Your task to perform on an android device: all mails in gmail Image 0: 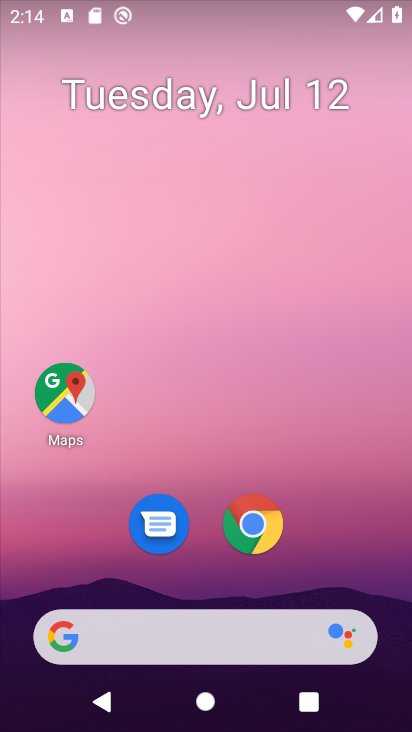
Step 0: drag from (326, 533) to (317, 0)
Your task to perform on an android device: all mails in gmail Image 1: 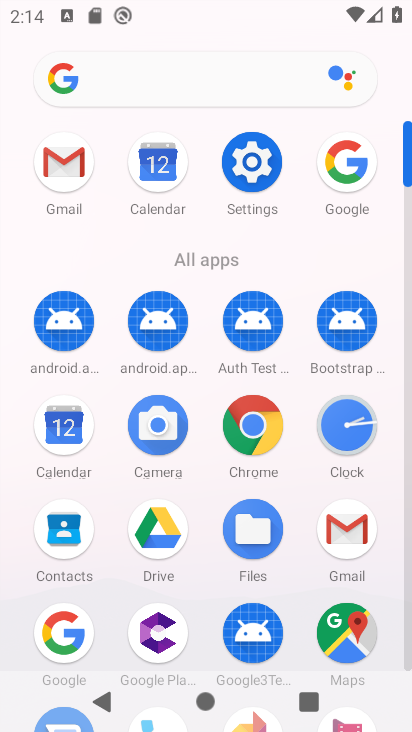
Step 1: click (70, 149)
Your task to perform on an android device: all mails in gmail Image 2: 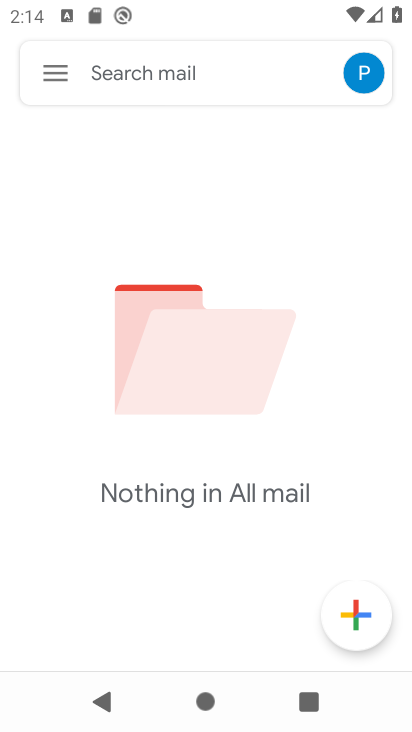
Step 2: task complete